Your task to perform on an android device: delete location history Image 0: 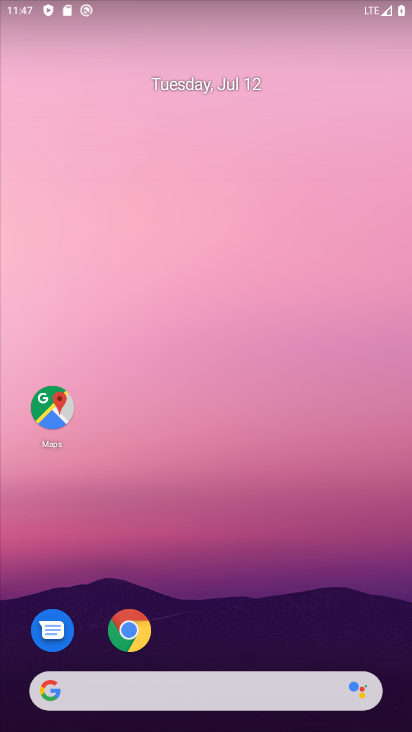
Step 0: drag from (382, 631) to (24, 17)
Your task to perform on an android device: delete location history Image 1: 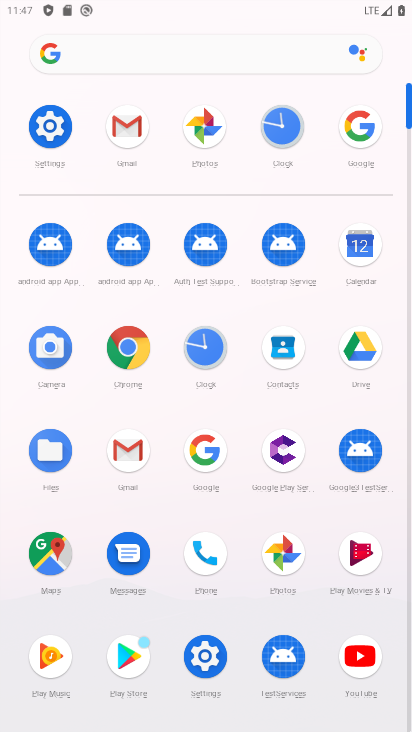
Step 1: click (210, 657)
Your task to perform on an android device: delete location history Image 2: 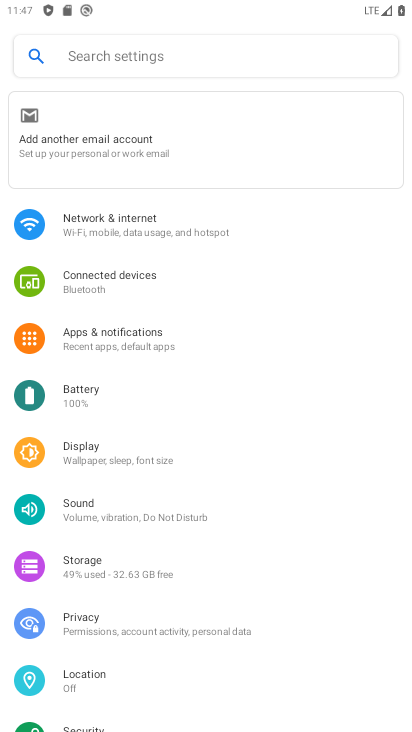
Step 2: click (107, 677)
Your task to perform on an android device: delete location history Image 3: 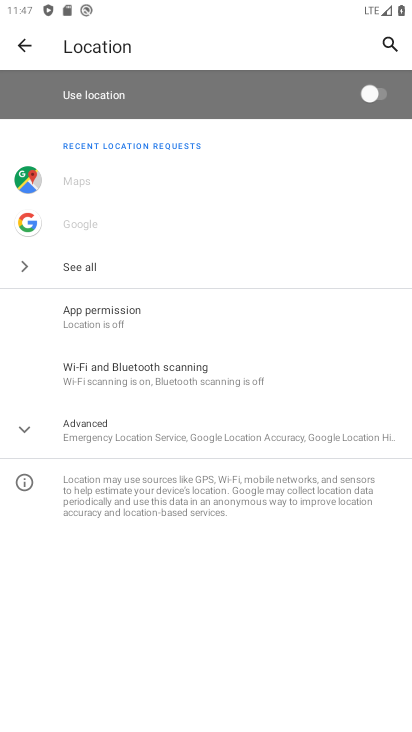
Step 3: click (135, 427)
Your task to perform on an android device: delete location history Image 4: 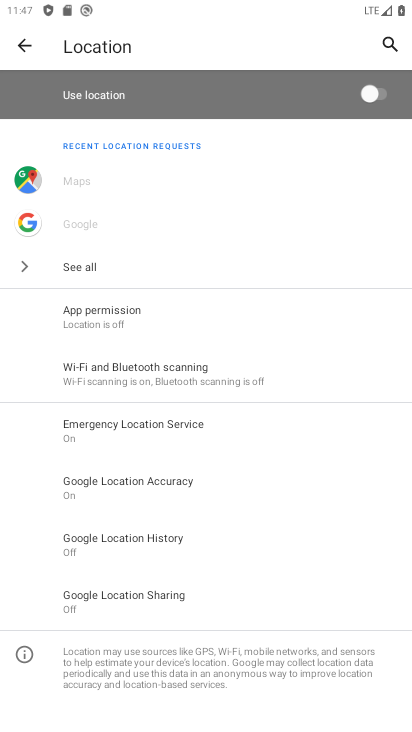
Step 4: click (152, 530)
Your task to perform on an android device: delete location history Image 5: 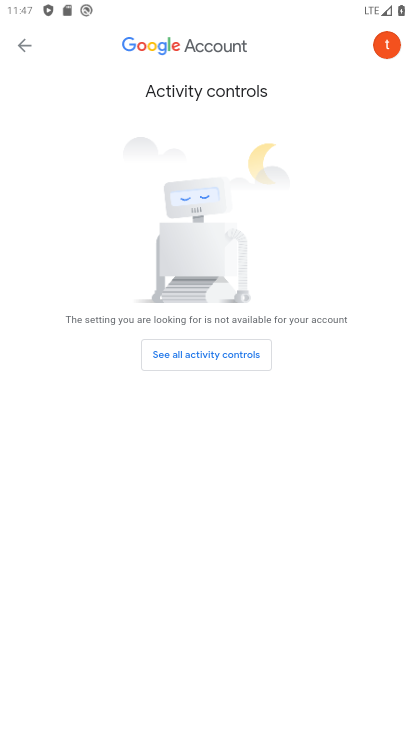
Step 5: task complete